Your task to perform on an android device: Open Google Maps and go to "Timeline" Image 0: 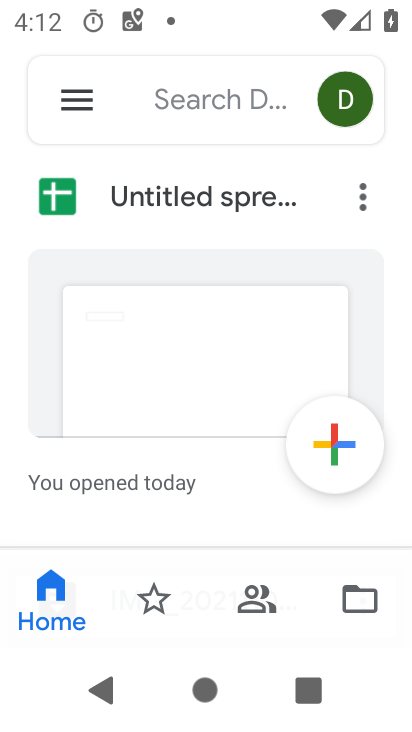
Step 0: press home button
Your task to perform on an android device: Open Google Maps and go to "Timeline" Image 1: 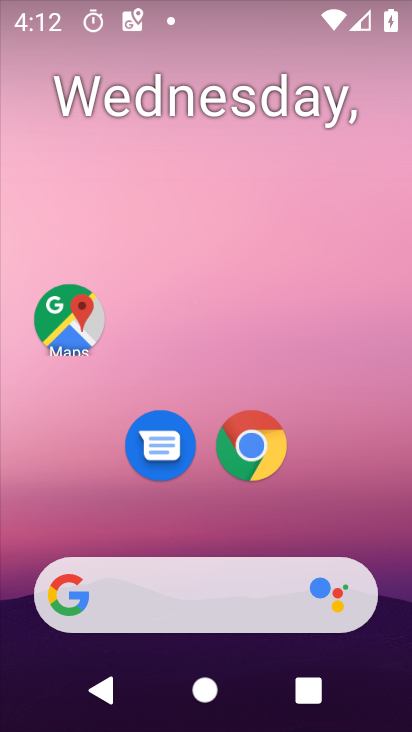
Step 1: drag from (207, 523) to (211, 104)
Your task to perform on an android device: Open Google Maps and go to "Timeline" Image 2: 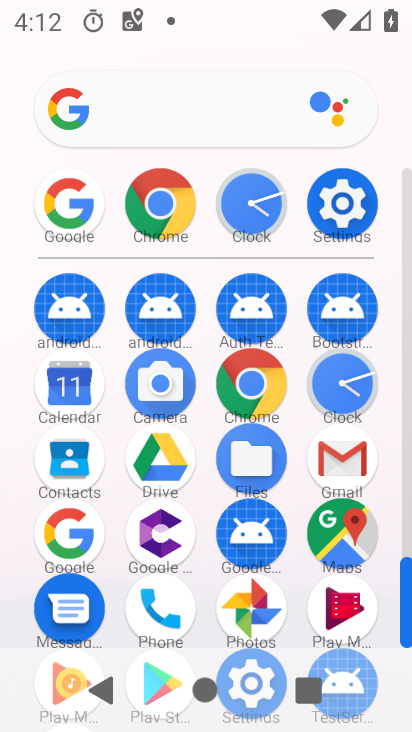
Step 2: click (339, 543)
Your task to perform on an android device: Open Google Maps and go to "Timeline" Image 3: 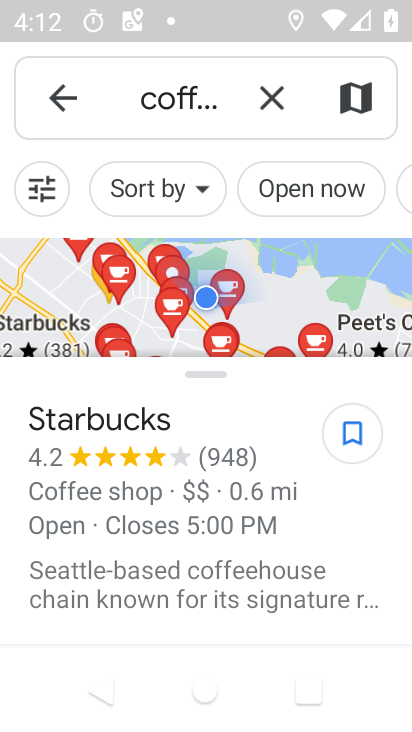
Step 3: click (274, 100)
Your task to perform on an android device: Open Google Maps and go to "Timeline" Image 4: 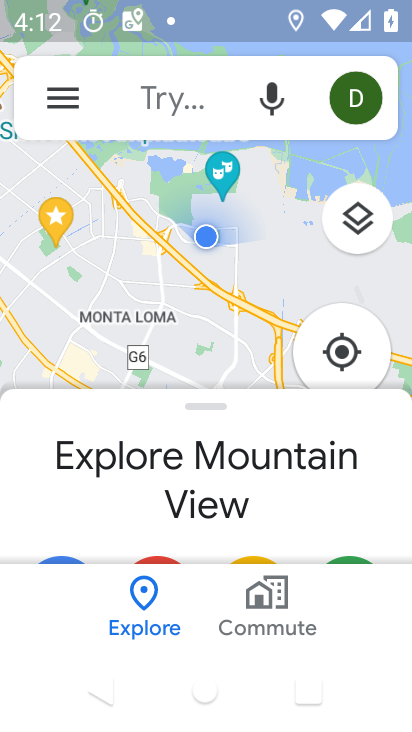
Step 4: click (57, 95)
Your task to perform on an android device: Open Google Maps and go to "Timeline" Image 5: 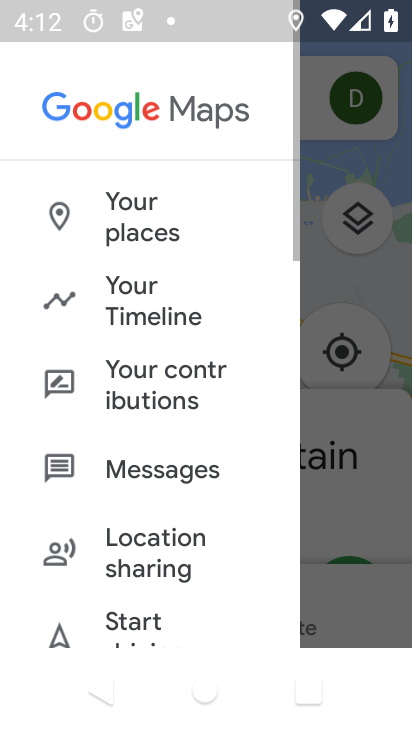
Step 5: drag from (162, 509) to (158, 461)
Your task to perform on an android device: Open Google Maps and go to "Timeline" Image 6: 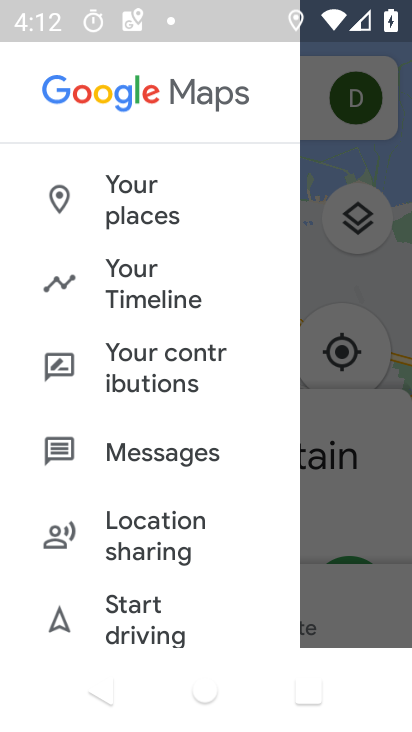
Step 6: click (174, 301)
Your task to perform on an android device: Open Google Maps and go to "Timeline" Image 7: 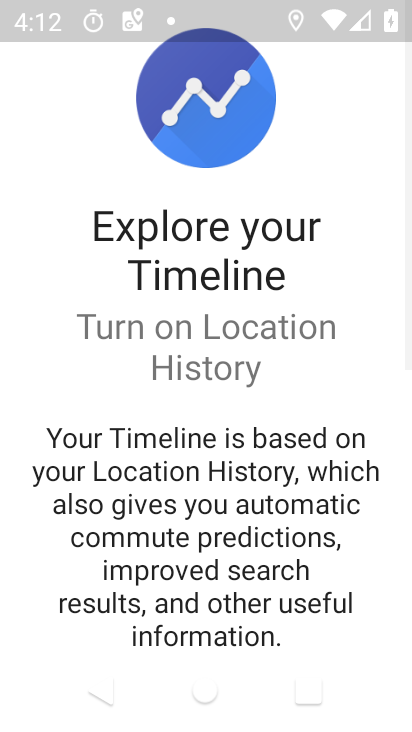
Step 7: drag from (220, 576) to (286, 108)
Your task to perform on an android device: Open Google Maps and go to "Timeline" Image 8: 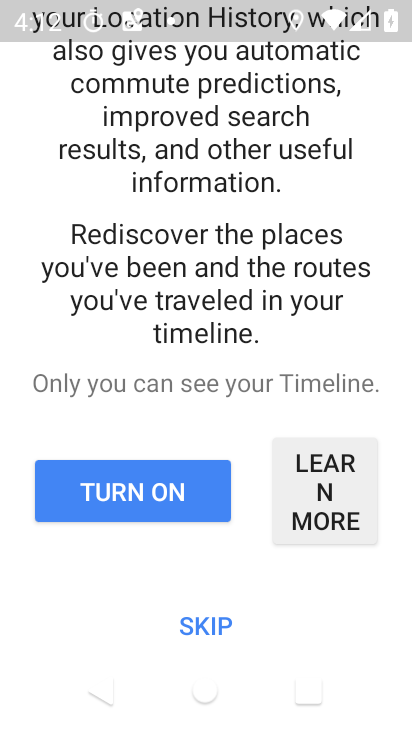
Step 8: click (199, 620)
Your task to perform on an android device: Open Google Maps and go to "Timeline" Image 9: 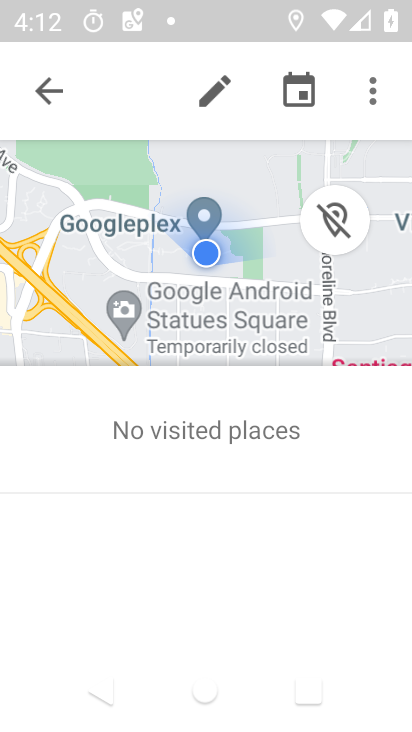
Step 9: task complete